Your task to perform on an android device: allow cookies in the chrome app Image 0: 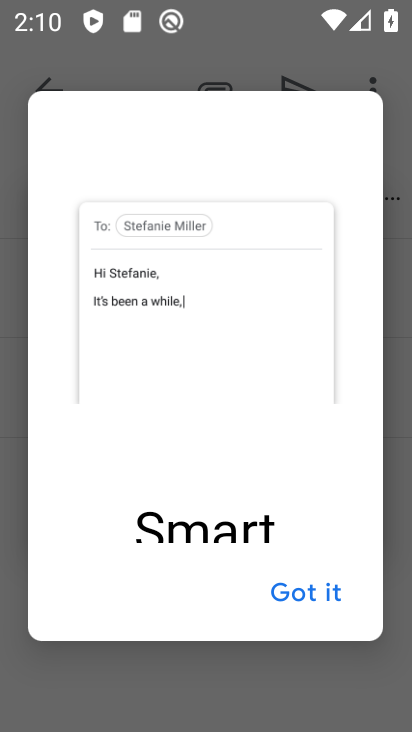
Step 0: drag from (388, 535) to (349, 63)
Your task to perform on an android device: allow cookies in the chrome app Image 1: 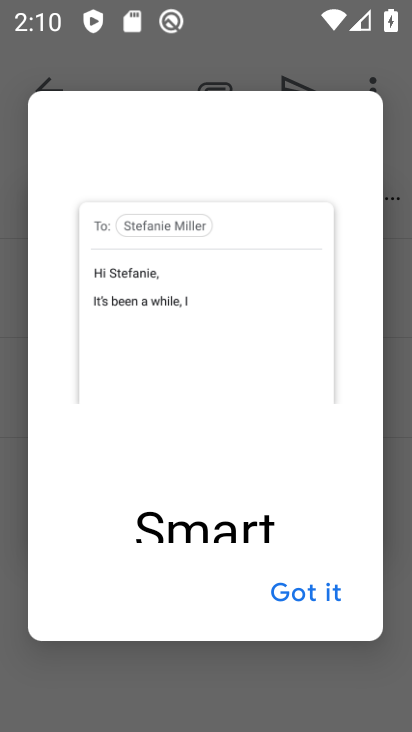
Step 1: press home button
Your task to perform on an android device: allow cookies in the chrome app Image 2: 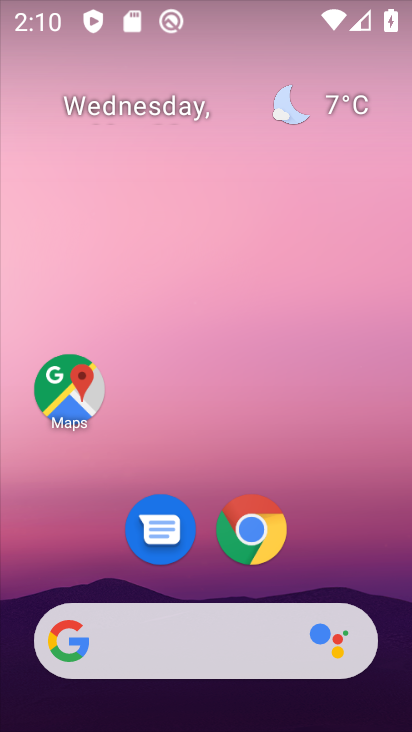
Step 2: drag from (348, 587) to (357, 106)
Your task to perform on an android device: allow cookies in the chrome app Image 3: 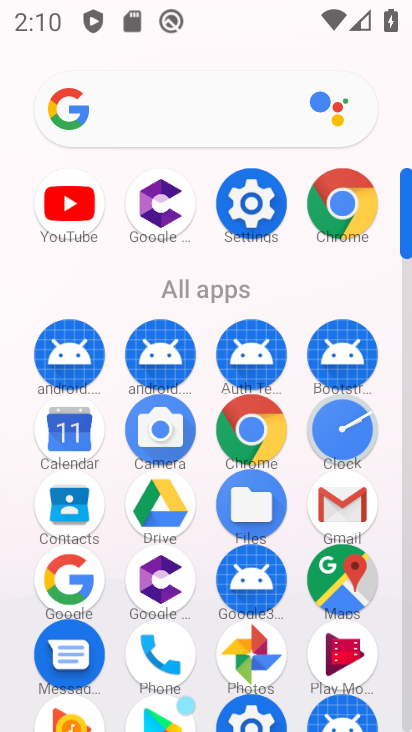
Step 3: click (350, 207)
Your task to perform on an android device: allow cookies in the chrome app Image 4: 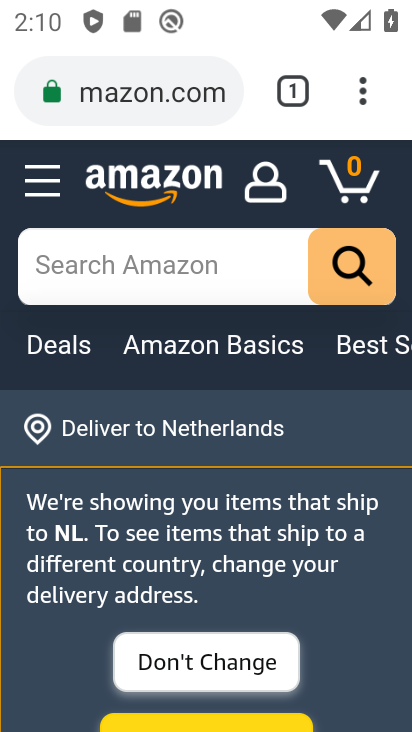
Step 4: drag from (362, 93) to (160, 538)
Your task to perform on an android device: allow cookies in the chrome app Image 5: 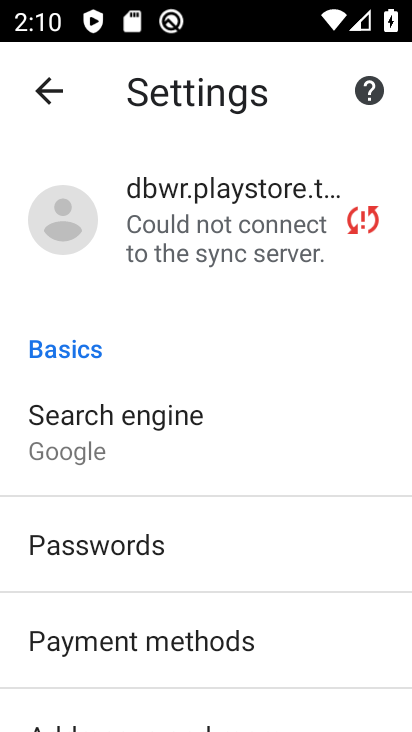
Step 5: drag from (161, 522) to (187, 173)
Your task to perform on an android device: allow cookies in the chrome app Image 6: 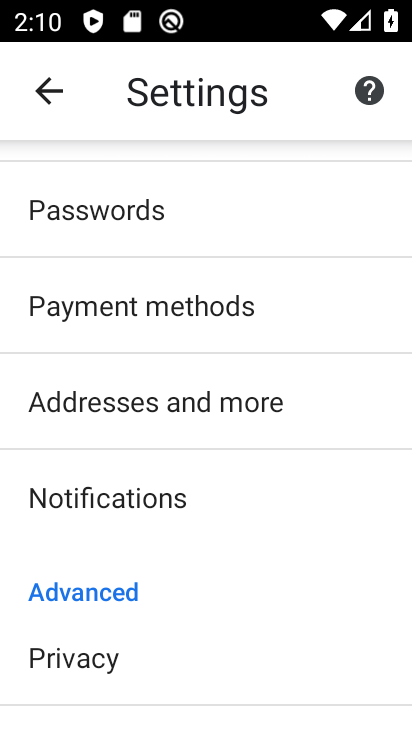
Step 6: drag from (144, 657) to (197, 206)
Your task to perform on an android device: allow cookies in the chrome app Image 7: 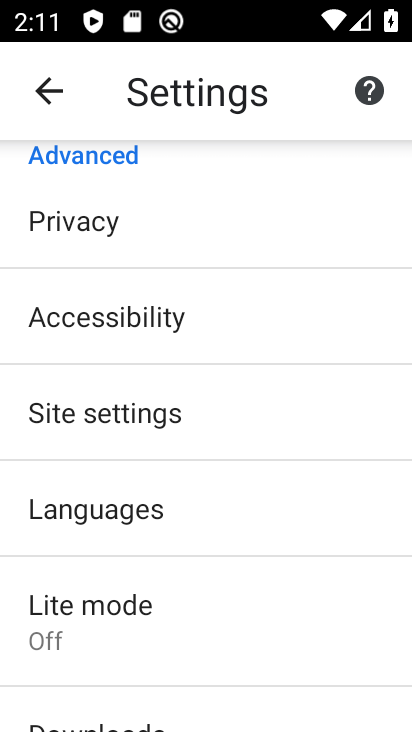
Step 7: drag from (153, 664) to (180, 302)
Your task to perform on an android device: allow cookies in the chrome app Image 8: 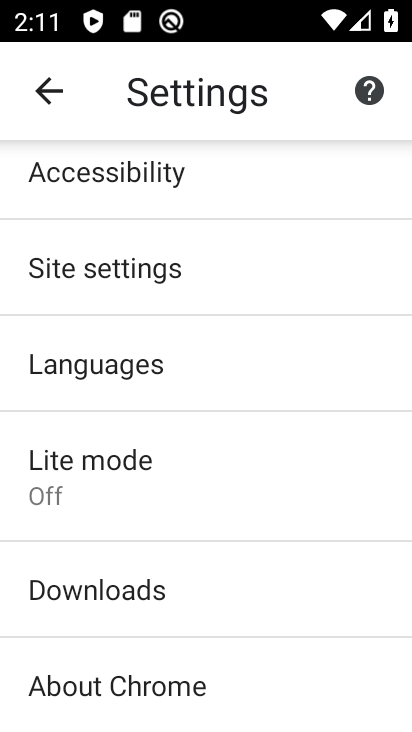
Step 8: click (174, 288)
Your task to perform on an android device: allow cookies in the chrome app Image 9: 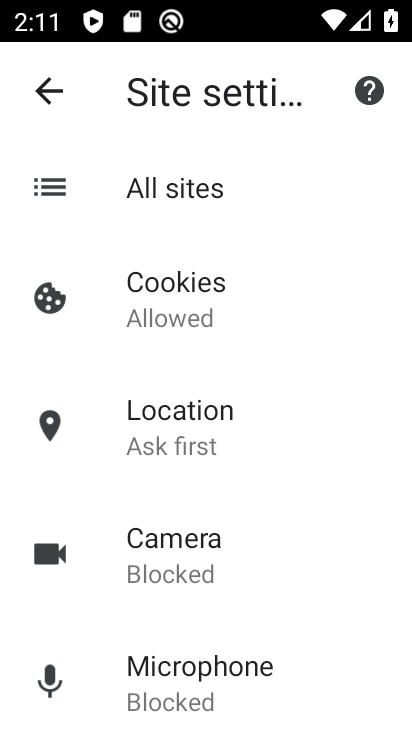
Step 9: click (174, 290)
Your task to perform on an android device: allow cookies in the chrome app Image 10: 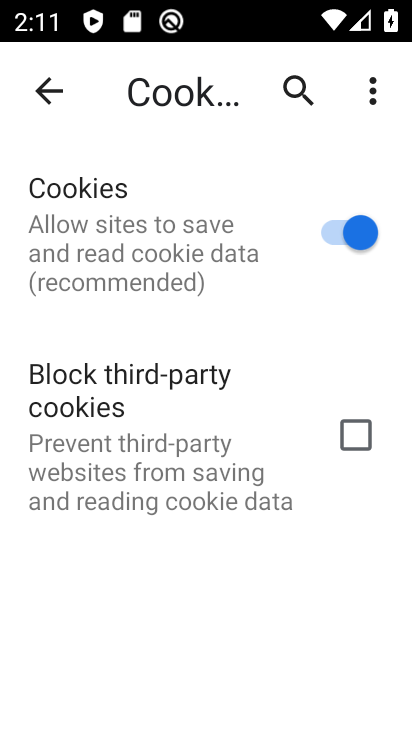
Step 10: task complete